Your task to perform on an android device: change timer sound Image 0: 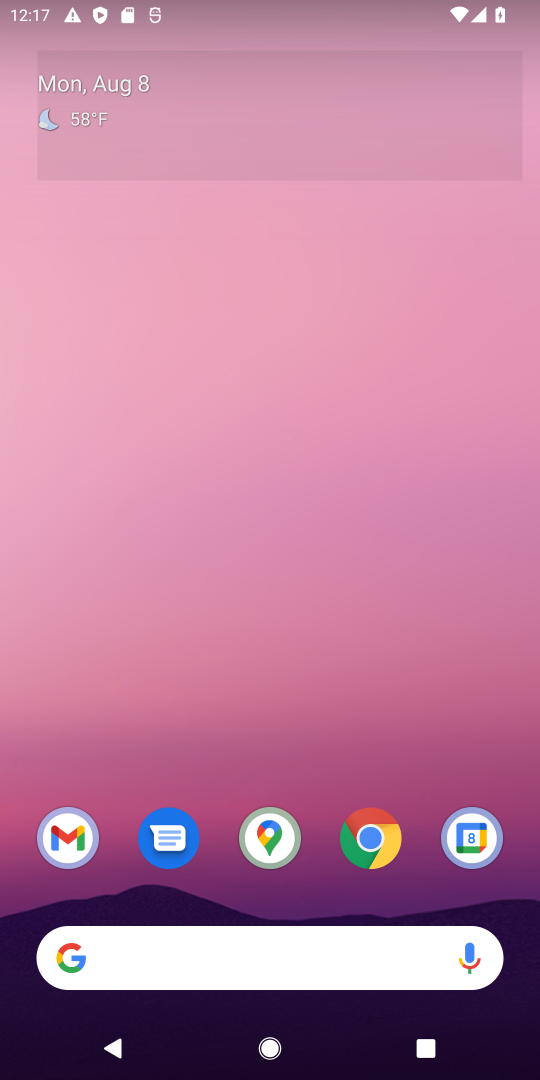
Step 0: press home button
Your task to perform on an android device: change timer sound Image 1: 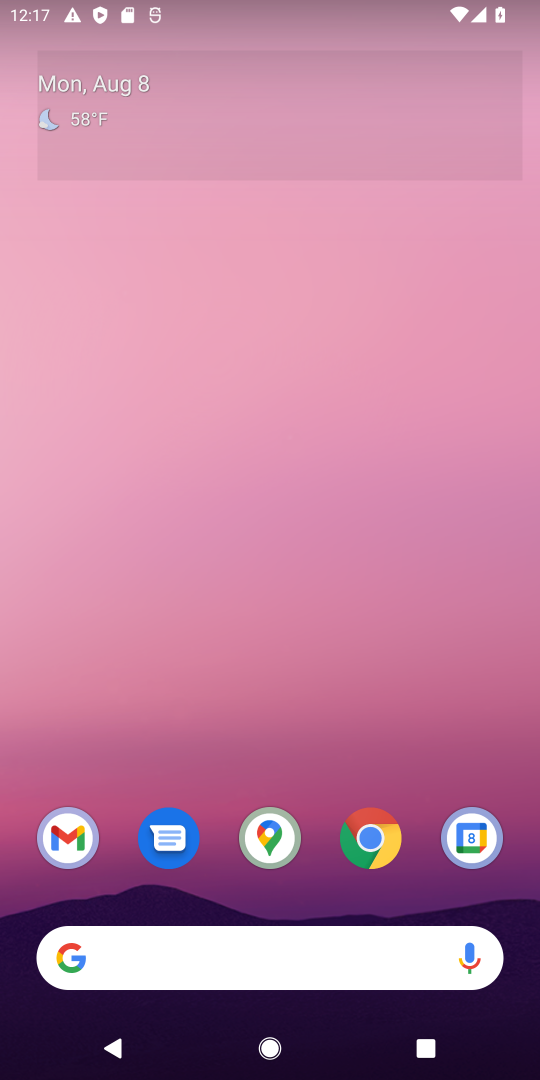
Step 1: drag from (332, 741) to (366, 108)
Your task to perform on an android device: change timer sound Image 2: 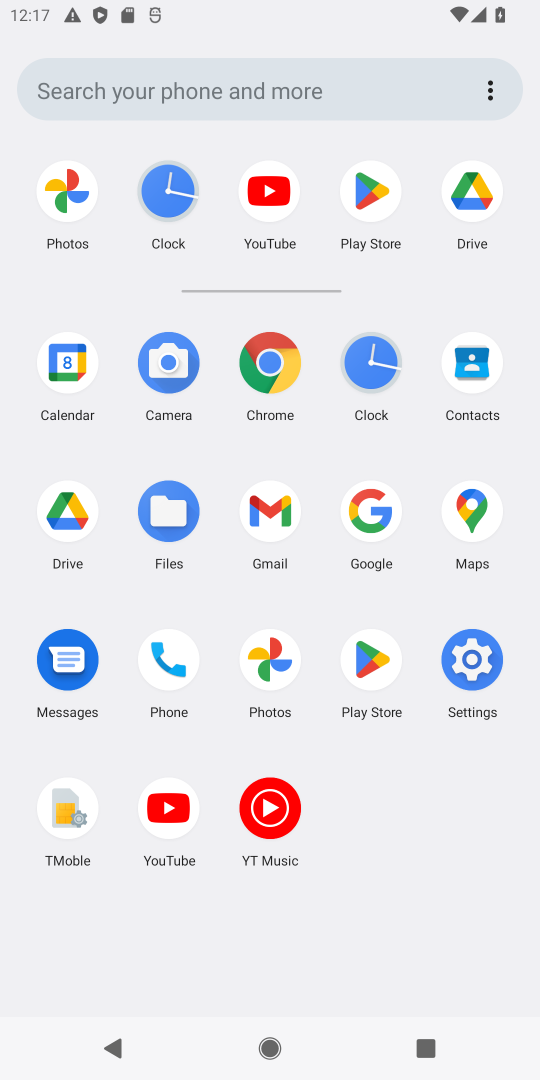
Step 2: click (162, 212)
Your task to perform on an android device: change timer sound Image 3: 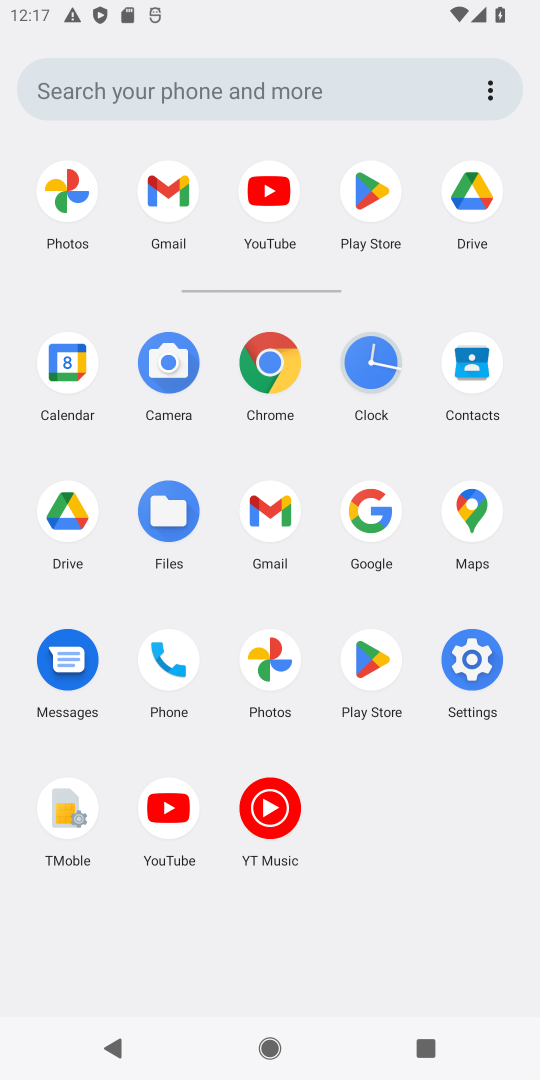
Step 3: click (379, 375)
Your task to perform on an android device: change timer sound Image 4: 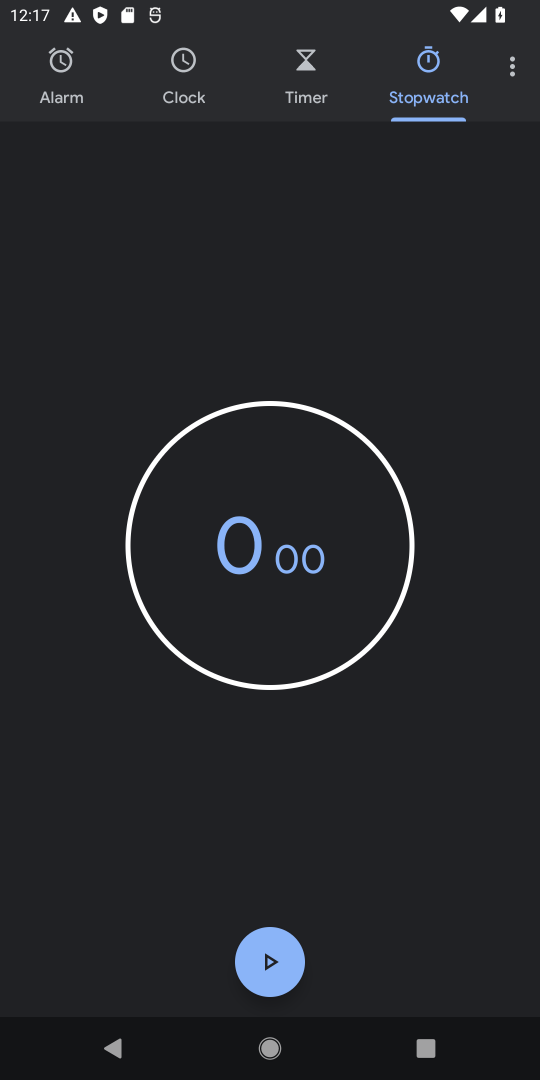
Step 4: click (516, 70)
Your task to perform on an android device: change timer sound Image 5: 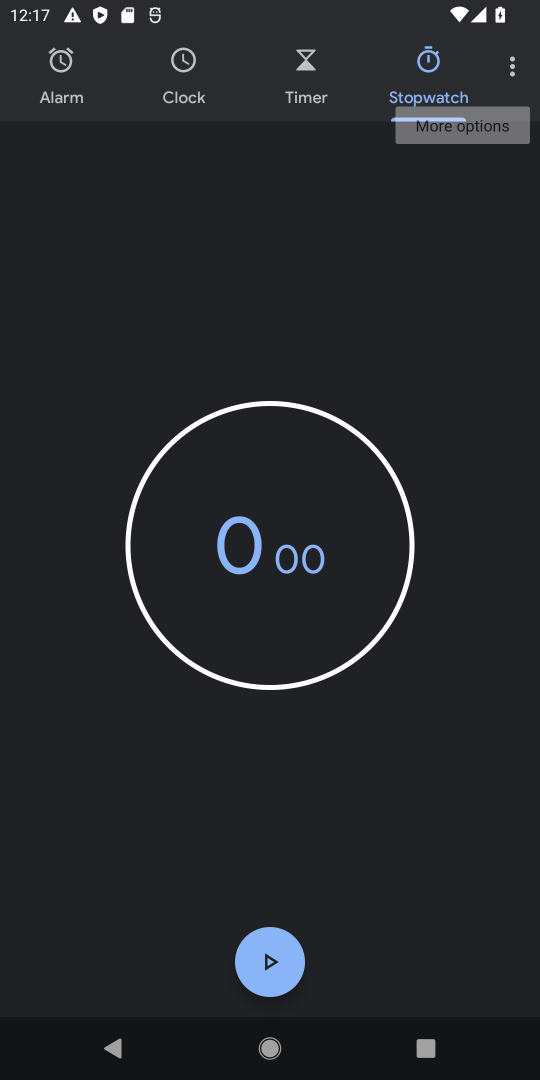
Step 5: click (519, 68)
Your task to perform on an android device: change timer sound Image 6: 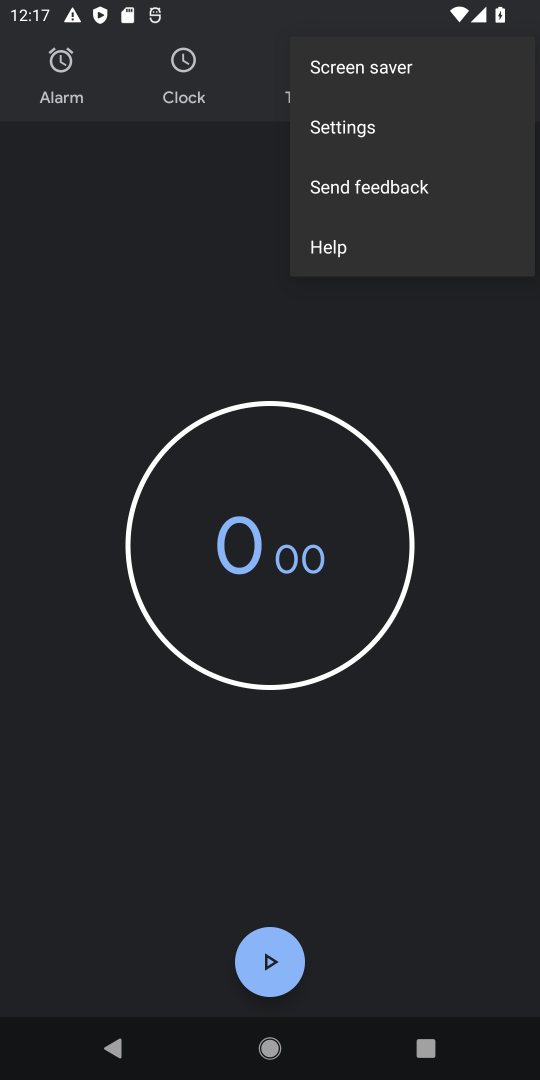
Step 6: click (348, 129)
Your task to perform on an android device: change timer sound Image 7: 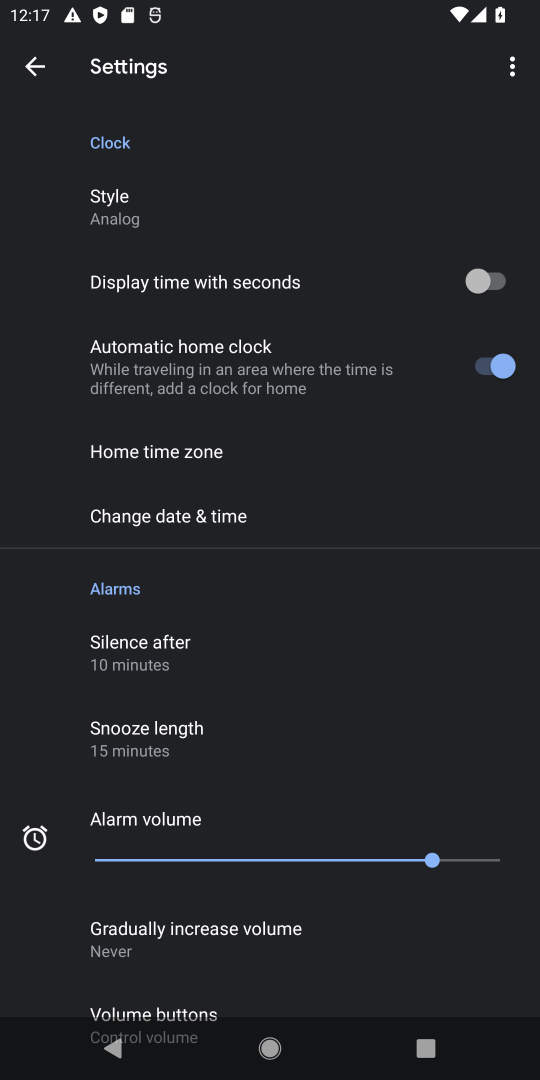
Step 7: drag from (392, 689) to (410, 220)
Your task to perform on an android device: change timer sound Image 8: 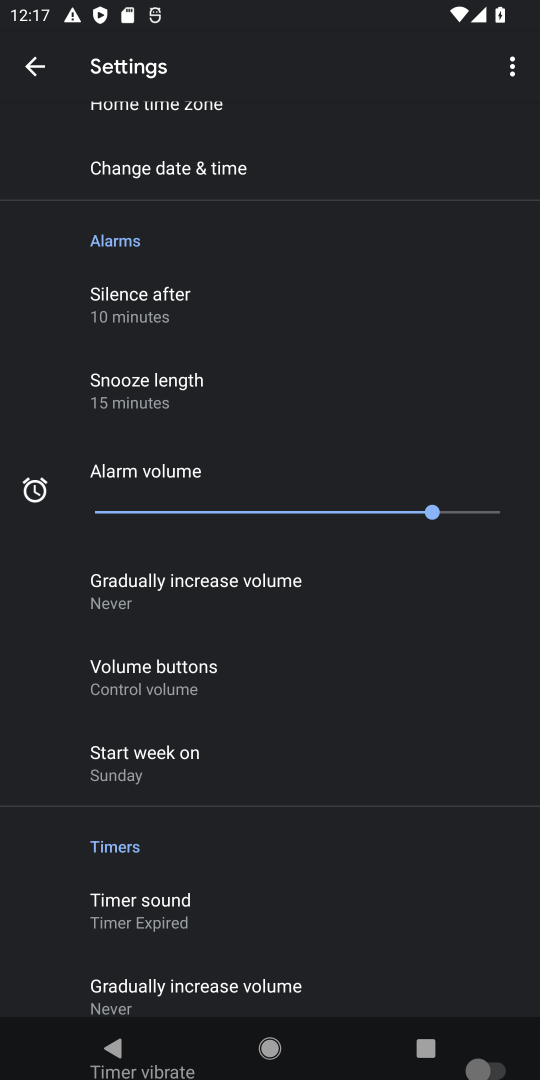
Step 8: click (126, 906)
Your task to perform on an android device: change timer sound Image 9: 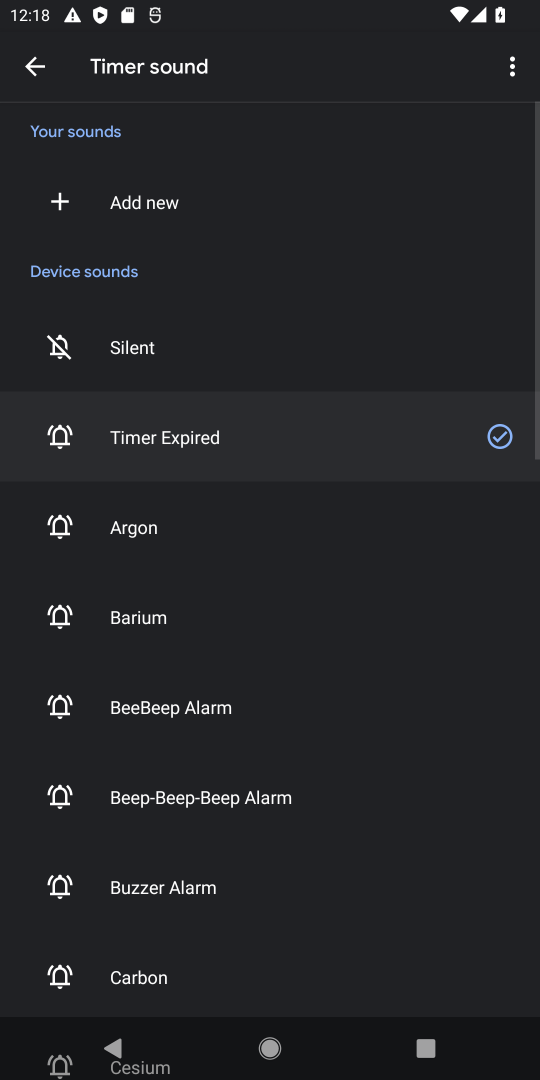
Step 9: click (143, 899)
Your task to perform on an android device: change timer sound Image 10: 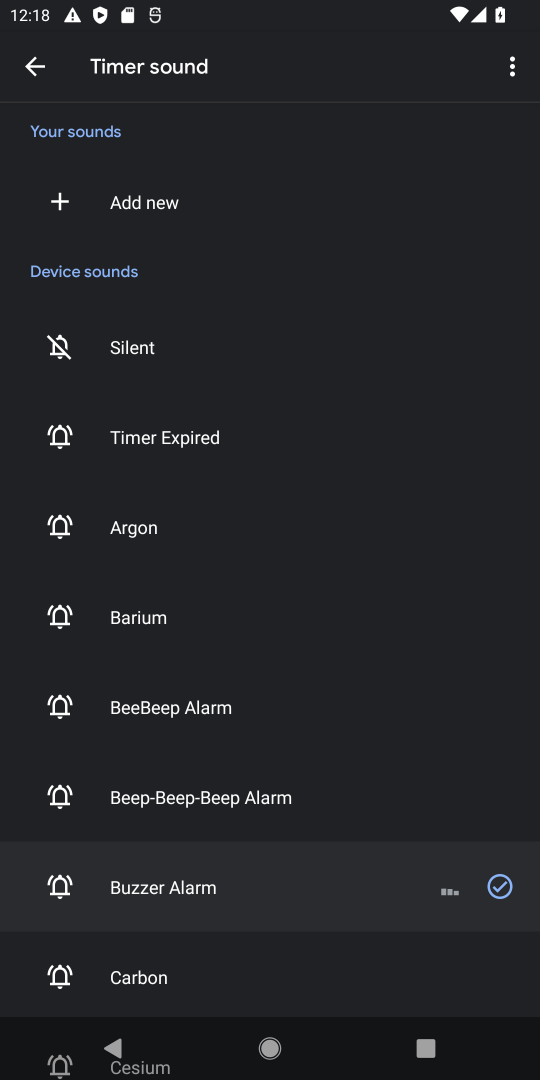
Step 10: task complete